Your task to perform on an android device: Is it going to rain this weekend? Image 0: 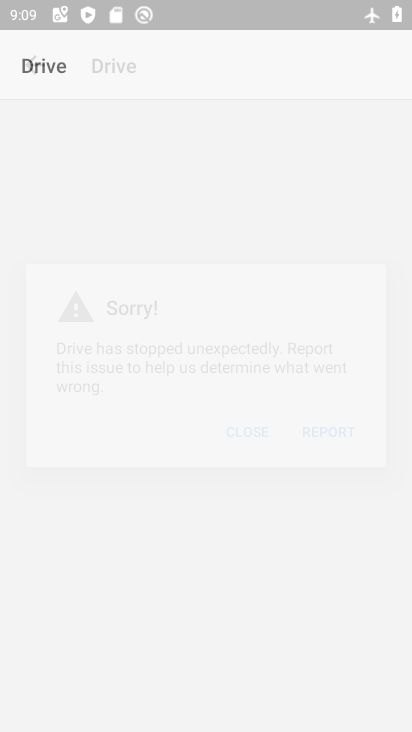
Step 0: drag from (321, 479) to (284, 12)
Your task to perform on an android device: Is it going to rain this weekend? Image 1: 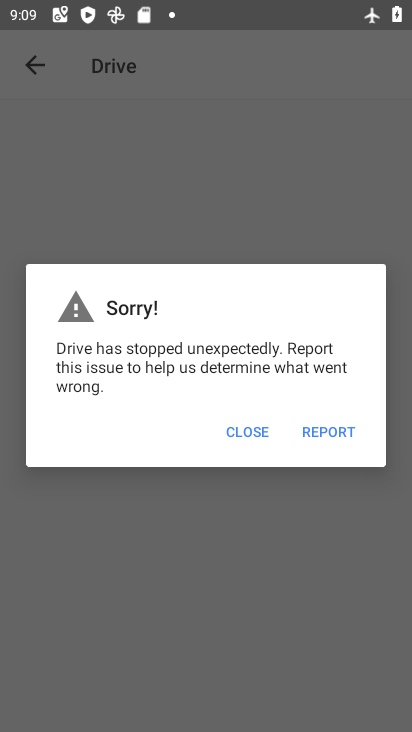
Step 1: press back button
Your task to perform on an android device: Is it going to rain this weekend? Image 2: 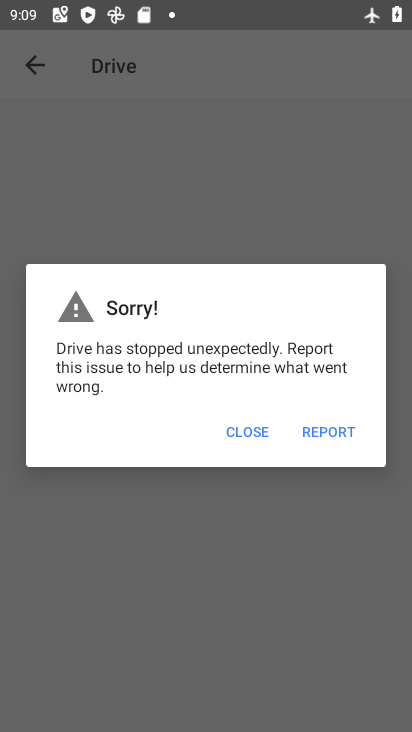
Step 2: press home button
Your task to perform on an android device: Is it going to rain this weekend? Image 3: 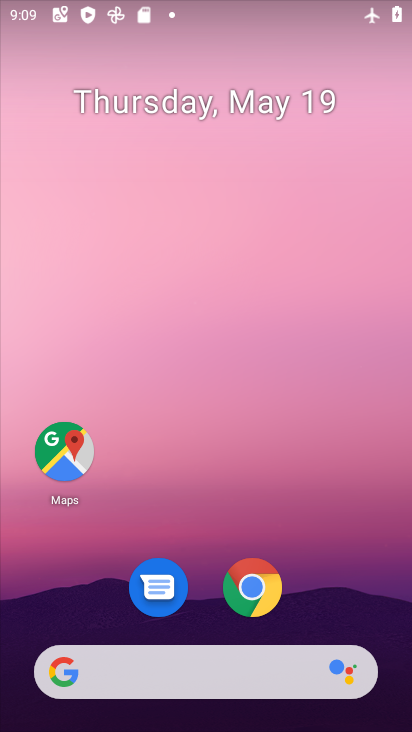
Step 3: drag from (311, 518) to (268, 106)
Your task to perform on an android device: Is it going to rain this weekend? Image 4: 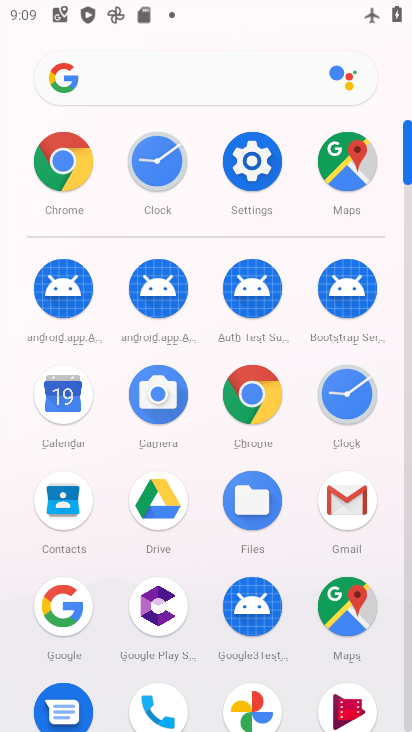
Step 4: drag from (13, 592) to (20, 269)
Your task to perform on an android device: Is it going to rain this weekend? Image 5: 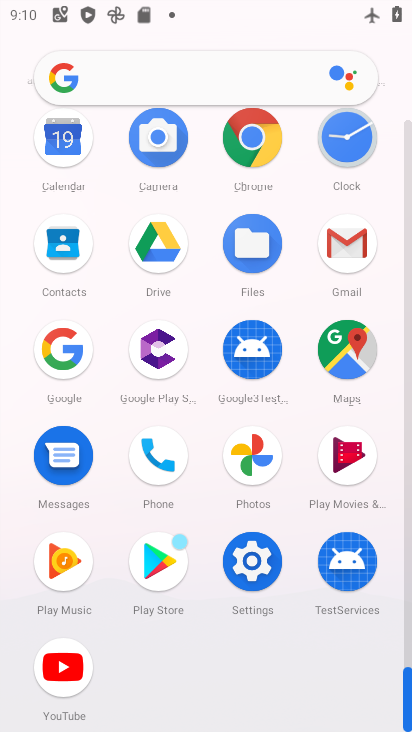
Step 5: click (255, 122)
Your task to perform on an android device: Is it going to rain this weekend? Image 6: 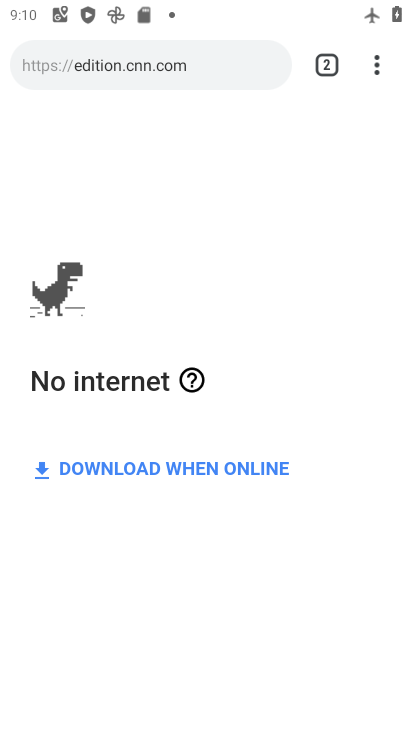
Step 6: click (164, 58)
Your task to perform on an android device: Is it going to rain this weekend? Image 7: 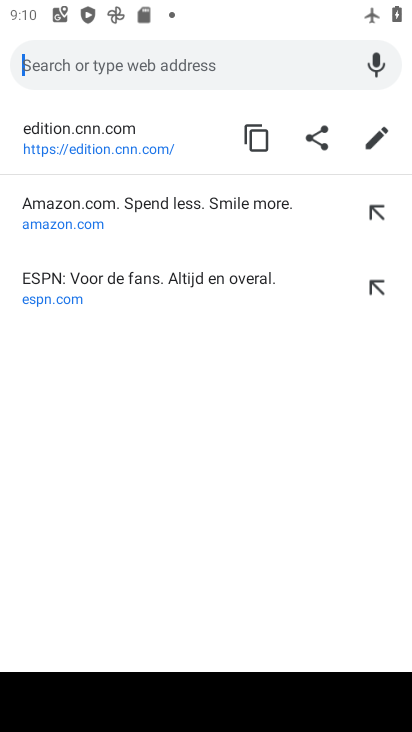
Step 7: click (193, 67)
Your task to perform on an android device: Is it going to rain this weekend? Image 8: 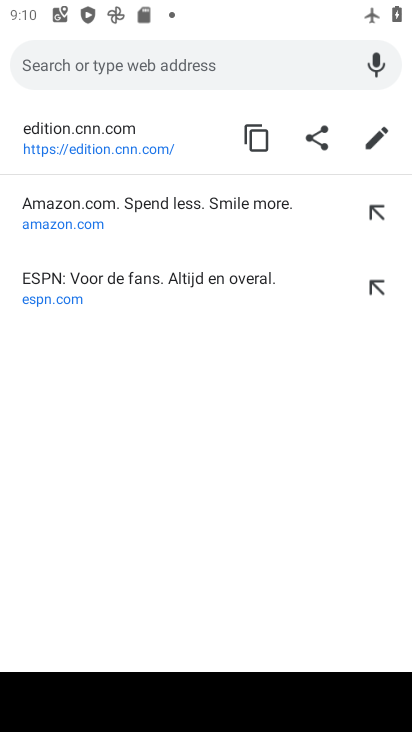
Step 8: type "Is it going to rain this weekend?"
Your task to perform on an android device: Is it going to rain this weekend? Image 9: 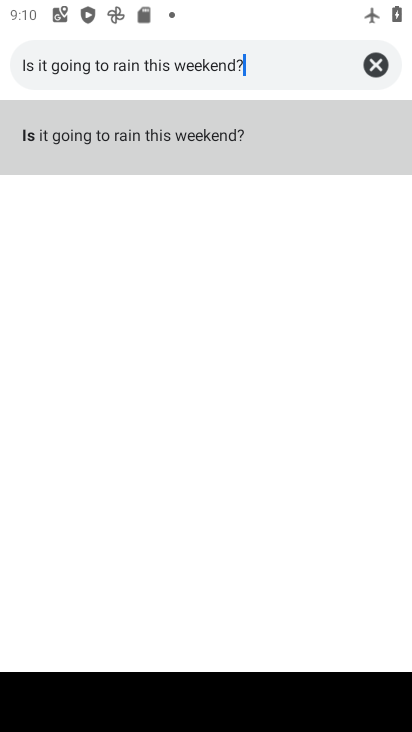
Step 9: type ""
Your task to perform on an android device: Is it going to rain this weekend? Image 10: 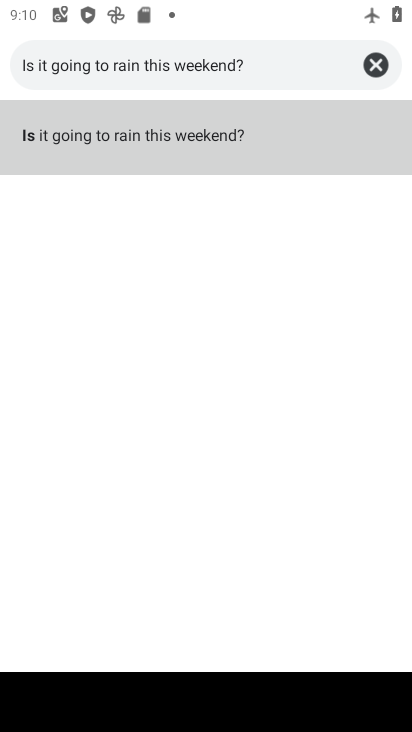
Step 10: click (283, 137)
Your task to perform on an android device: Is it going to rain this weekend? Image 11: 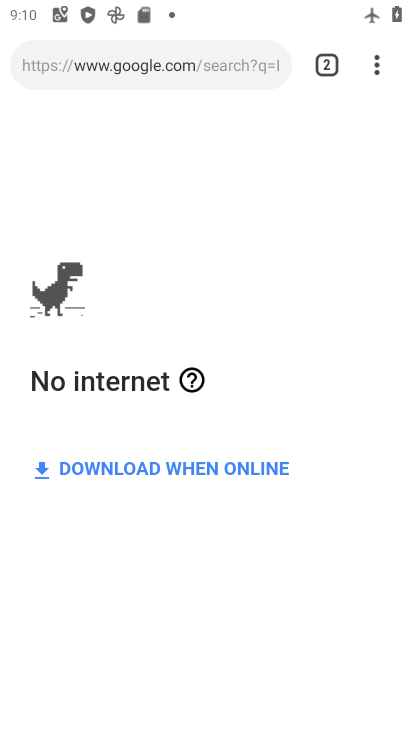
Step 11: task complete